Your task to perform on an android device: Open my contact list Image 0: 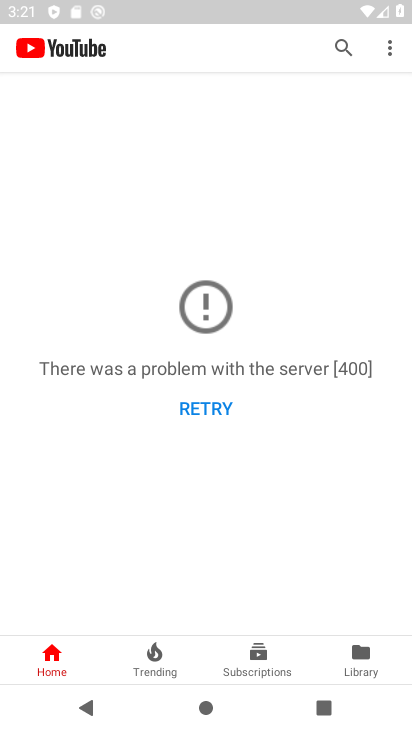
Step 0: press home button
Your task to perform on an android device: Open my contact list Image 1: 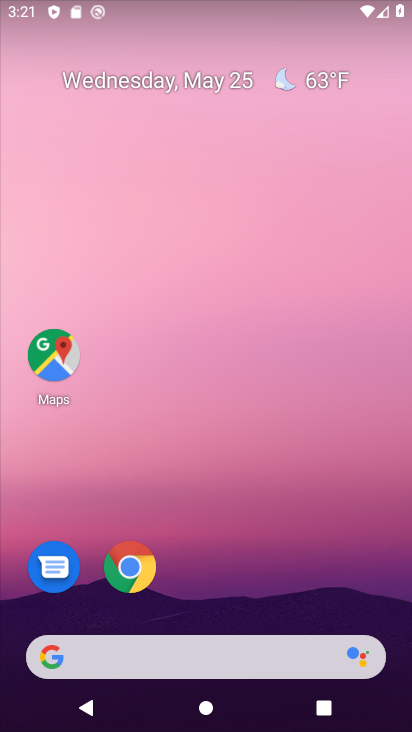
Step 1: drag from (268, 599) to (243, 61)
Your task to perform on an android device: Open my contact list Image 2: 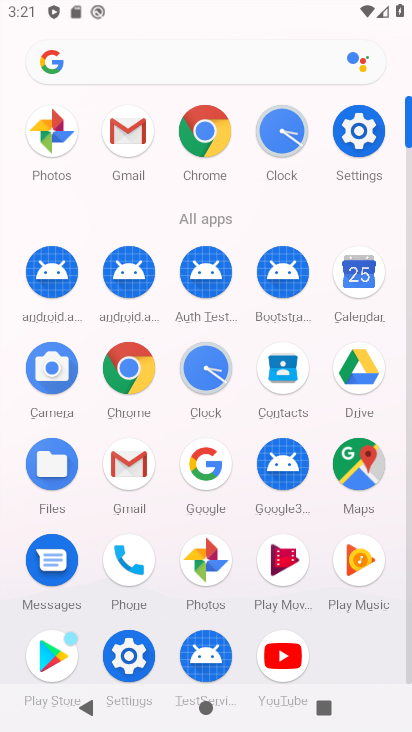
Step 2: click (274, 372)
Your task to perform on an android device: Open my contact list Image 3: 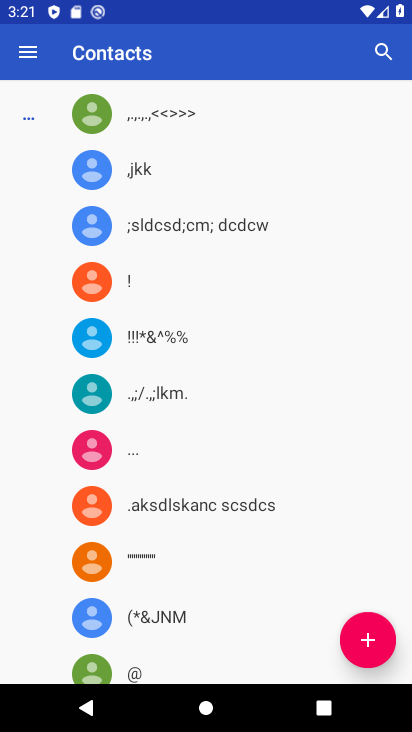
Step 3: task complete